Your task to perform on an android device: Open display settings Image 0: 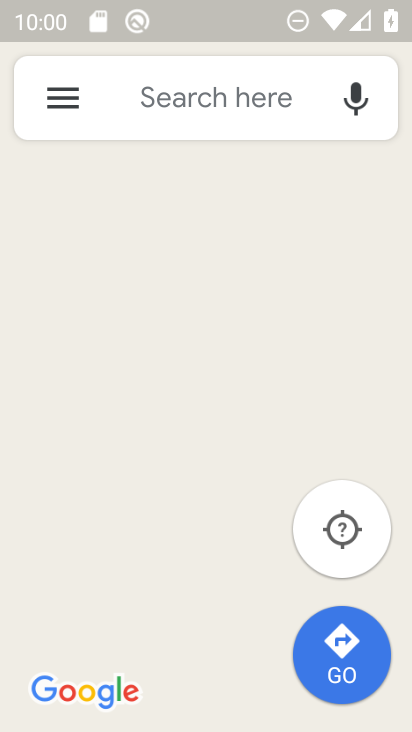
Step 0: press home button
Your task to perform on an android device: Open display settings Image 1: 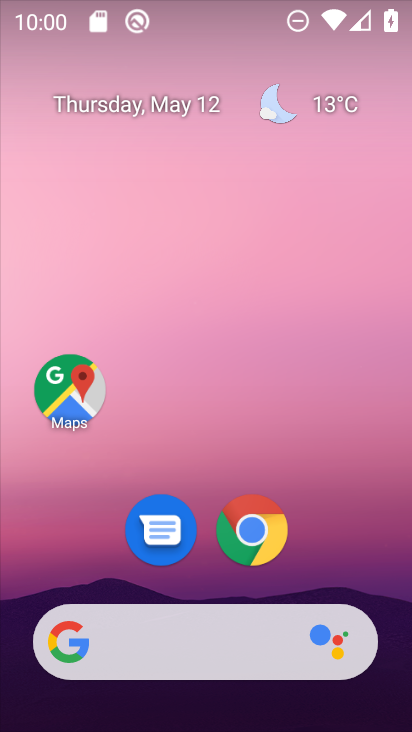
Step 1: drag from (361, 524) to (345, 278)
Your task to perform on an android device: Open display settings Image 2: 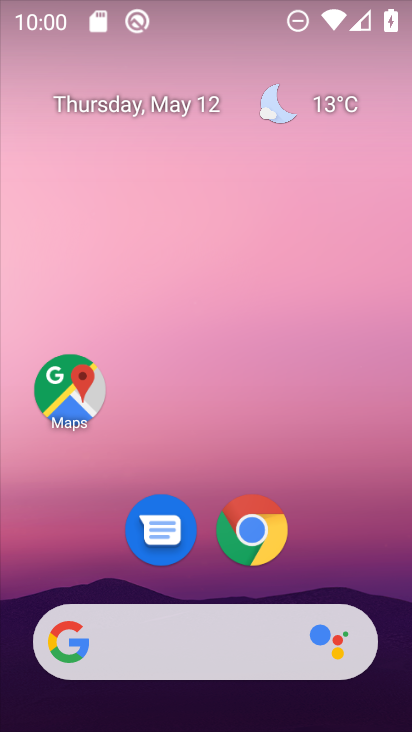
Step 2: drag from (325, 554) to (330, 144)
Your task to perform on an android device: Open display settings Image 3: 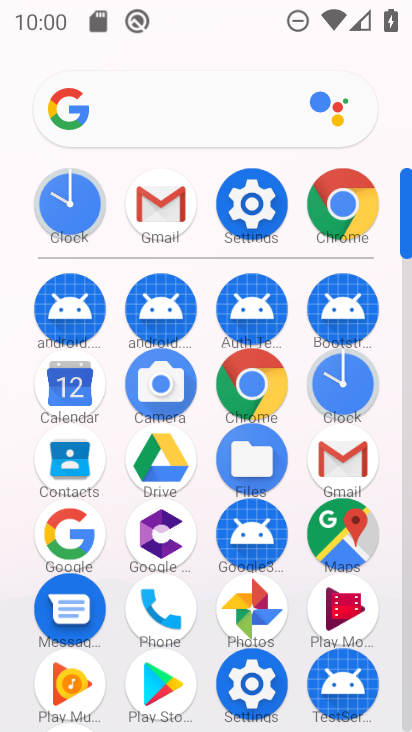
Step 3: click (262, 232)
Your task to perform on an android device: Open display settings Image 4: 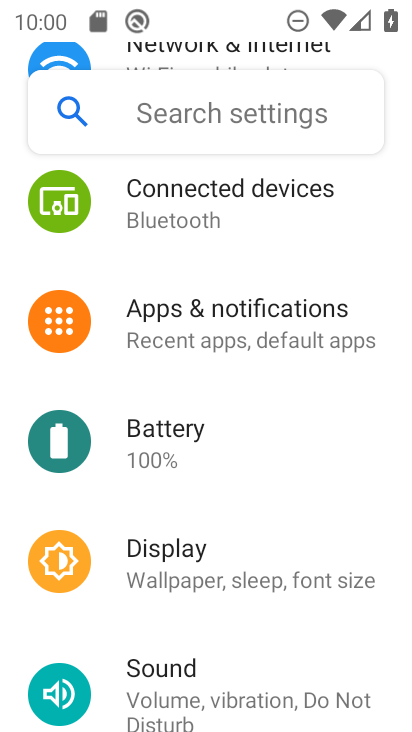
Step 4: click (220, 581)
Your task to perform on an android device: Open display settings Image 5: 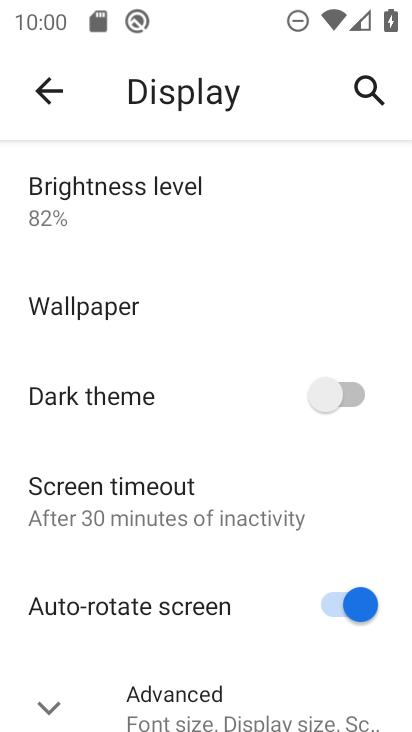
Step 5: task complete